Your task to perform on an android device: Open Youtube and go to the subscriptions tab Image 0: 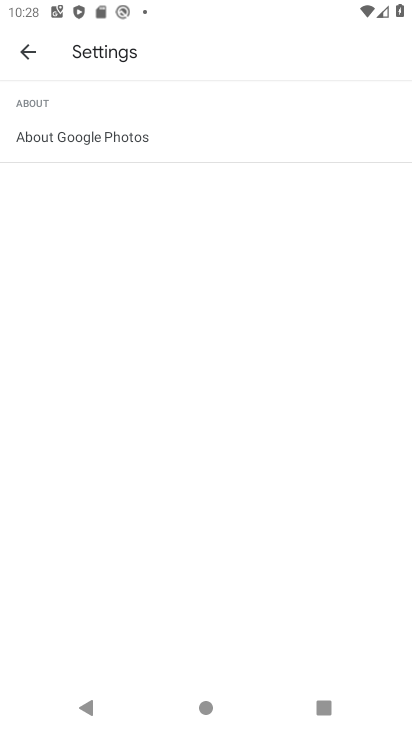
Step 0: press home button
Your task to perform on an android device: Open Youtube and go to the subscriptions tab Image 1: 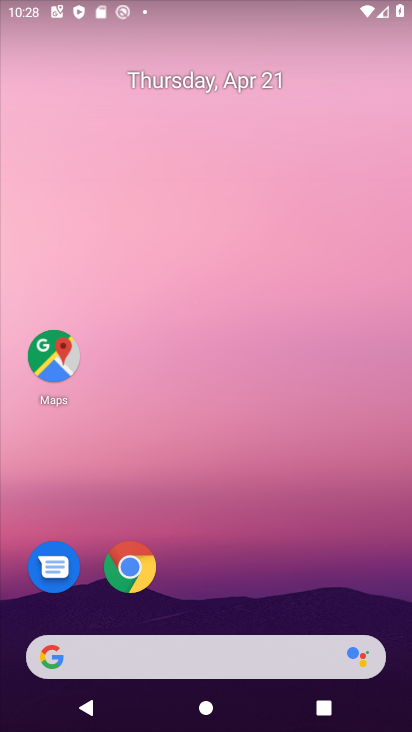
Step 1: drag from (263, 593) to (282, 90)
Your task to perform on an android device: Open Youtube and go to the subscriptions tab Image 2: 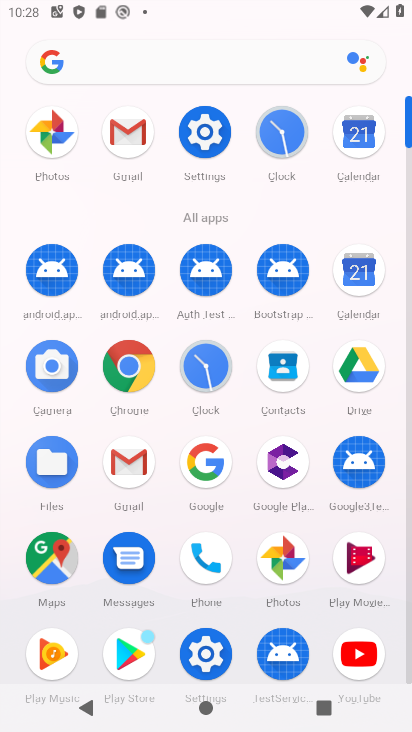
Step 2: click (370, 669)
Your task to perform on an android device: Open Youtube and go to the subscriptions tab Image 3: 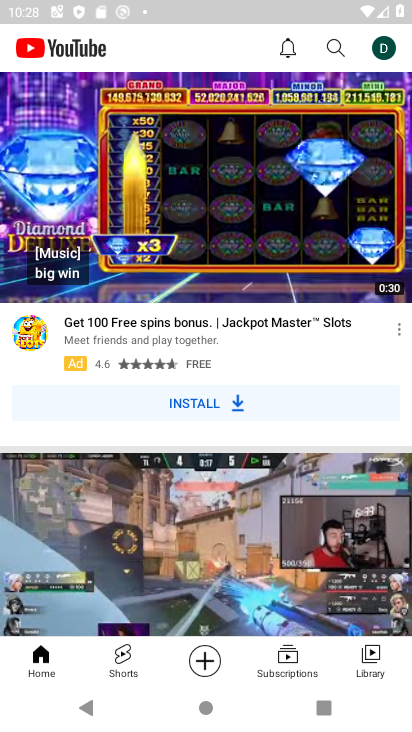
Step 3: click (294, 644)
Your task to perform on an android device: Open Youtube and go to the subscriptions tab Image 4: 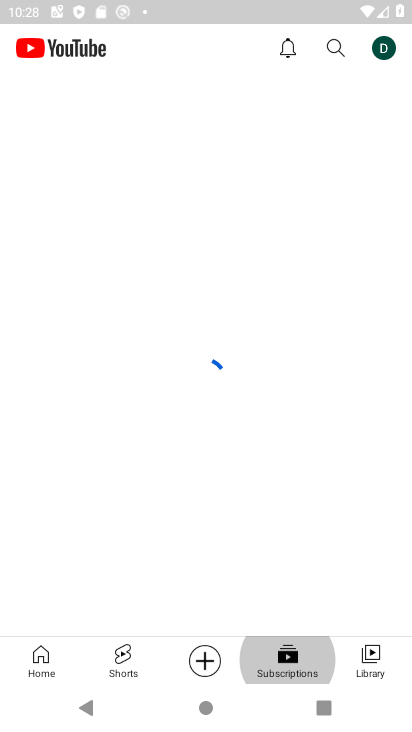
Step 4: click (294, 644)
Your task to perform on an android device: Open Youtube and go to the subscriptions tab Image 5: 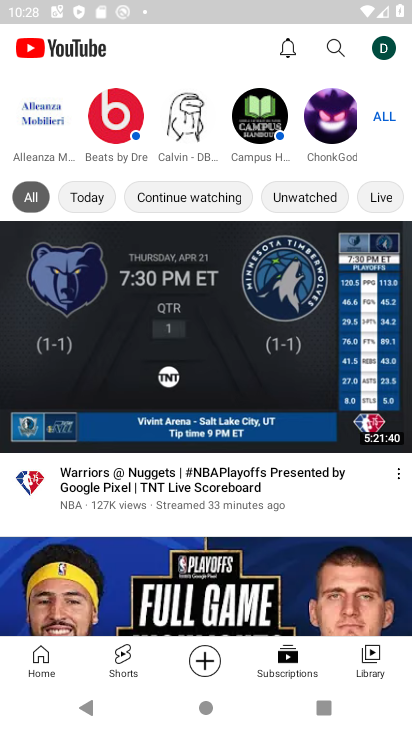
Step 5: task complete